Your task to perform on an android device: all mails in gmail Image 0: 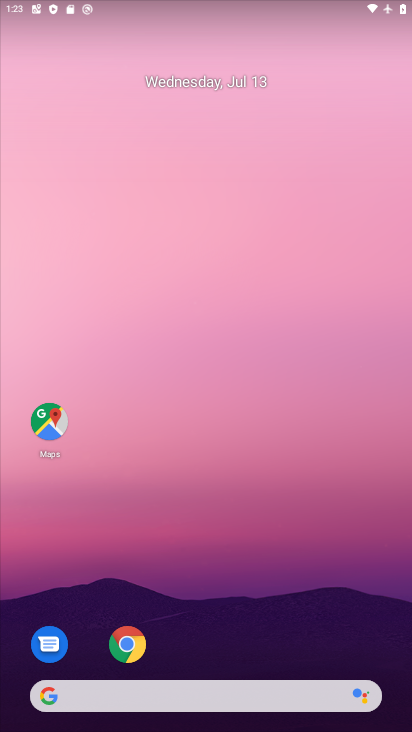
Step 0: drag from (286, 633) to (292, 84)
Your task to perform on an android device: all mails in gmail Image 1: 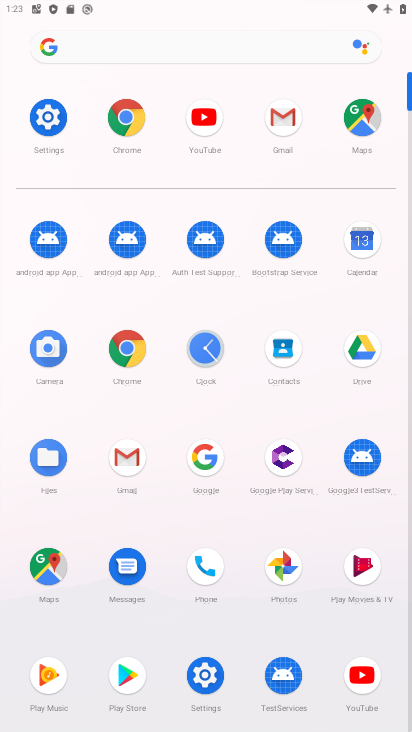
Step 1: click (275, 111)
Your task to perform on an android device: all mails in gmail Image 2: 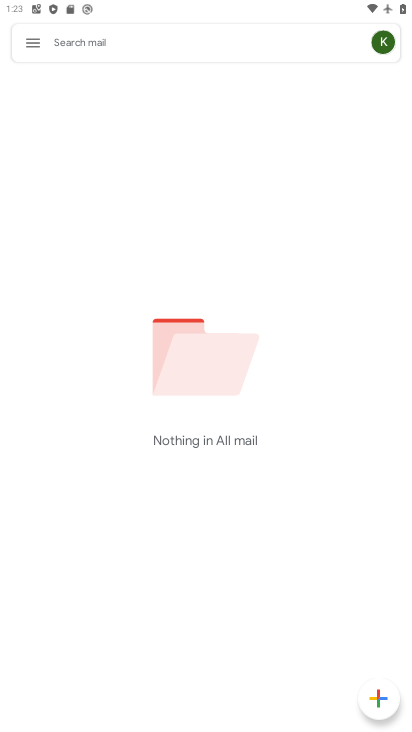
Step 2: task complete